Your task to perform on an android device: turn off location Image 0: 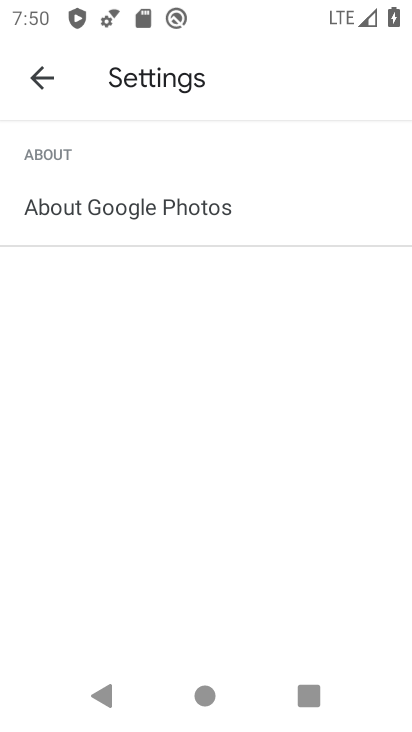
Step 0: press back button
Your task to perform on an android device: turn off location Image 1: 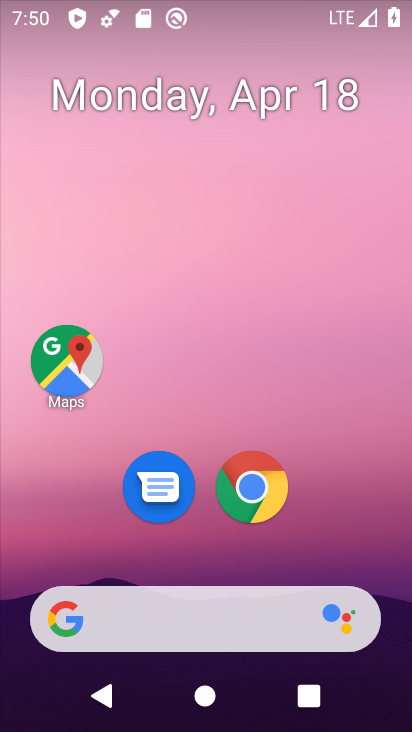
Step 1: drag from (208, 726) to (198, 128)
Your task to perform on an android device: turn off location Image 2: 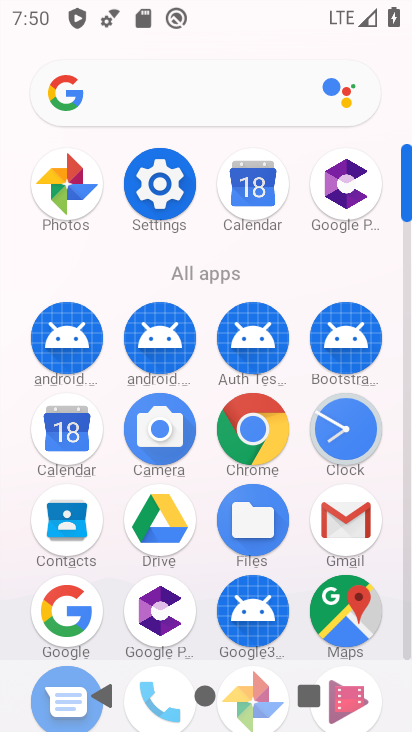
Step 2: click (160, 194)
Your task to perform on an android device: turn off location Image 3: 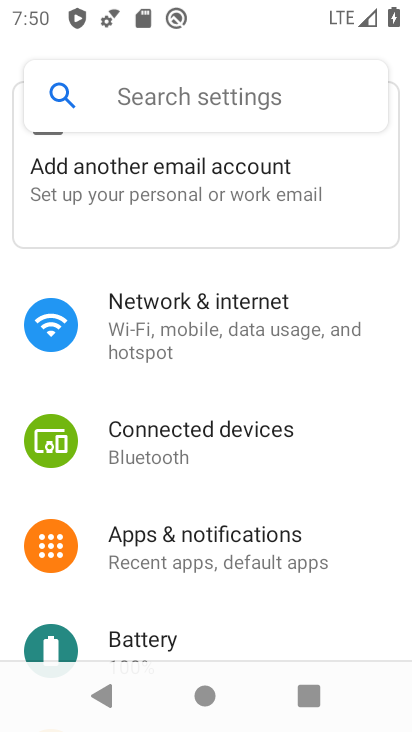
Step 3: drag from (196, 618) to (270, 242)
Your task to perform on an android device: turn off location Image 4: 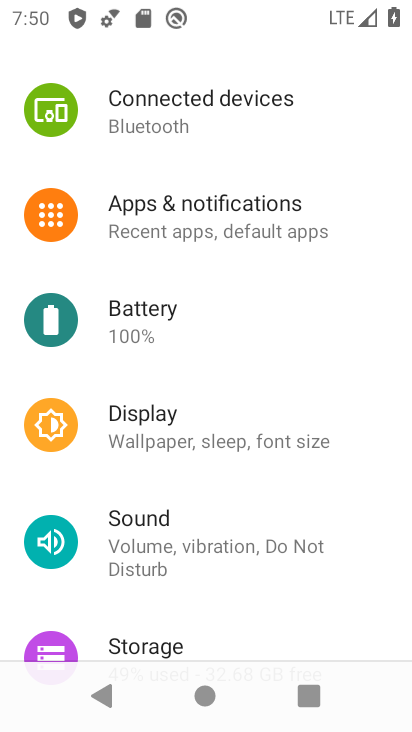
Step 4: drag from (210, 606) to (254, 258)
Your task to perform on an android device: turn off location Image 5: 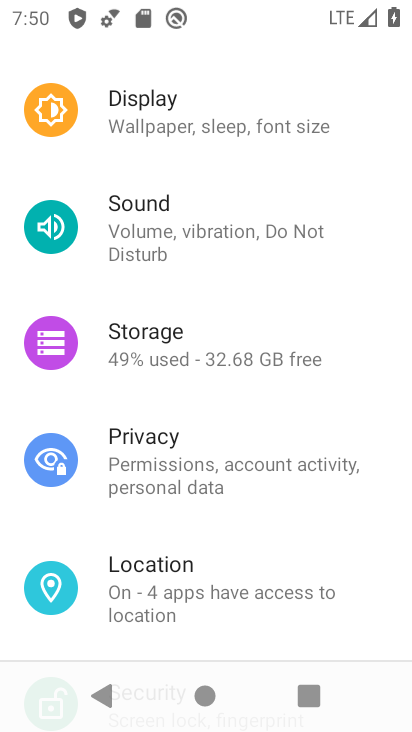
Step 5: click (170, 577)
Your task to perform on an android device: turn off location Image 6: 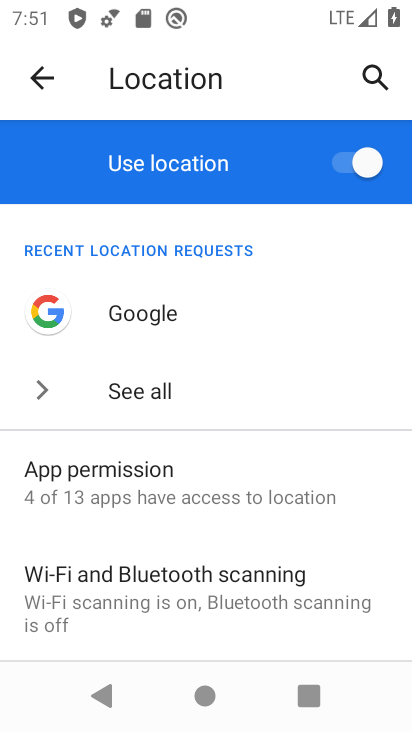
Step 6: click (337, 167)
Your task to perform on an android device: turn off location Image 7: 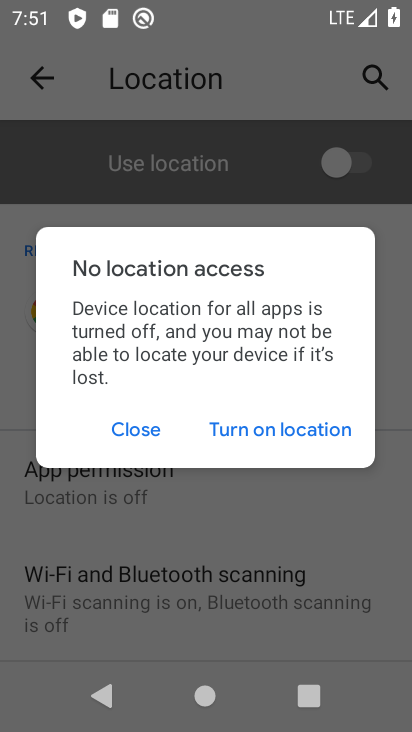
Step 7: click (133, 426)
Your task to perform on an android device: turn off location Image 8: 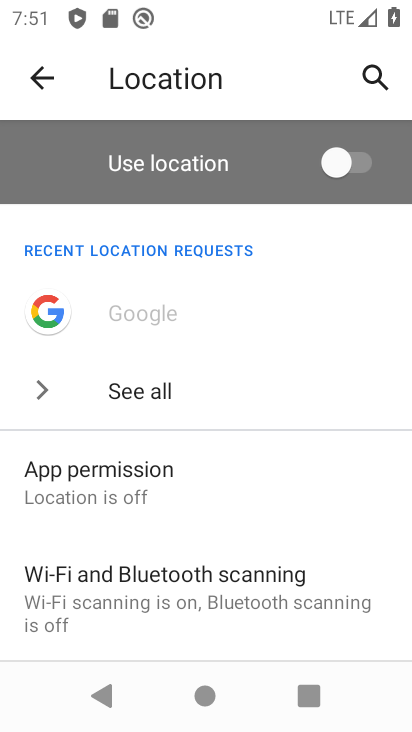
Step 8: task complete